Your task to perform on an android device: Open Google Chrome and open the bookmarks view Image 0: 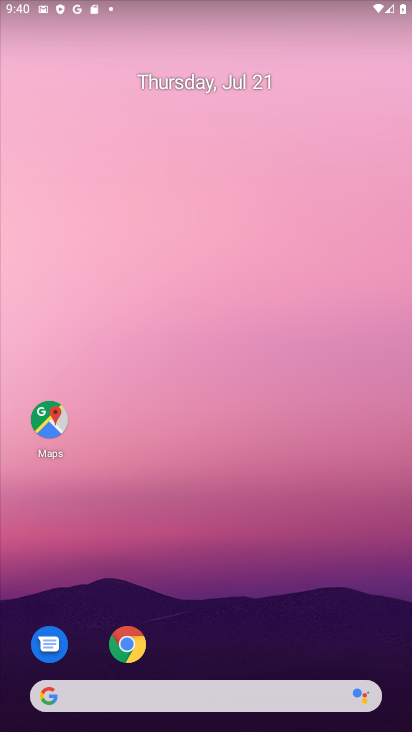
Step 0: press home button
Your task to perform on an android device: Open Google Chrome and open the bookmarks view Image 1: 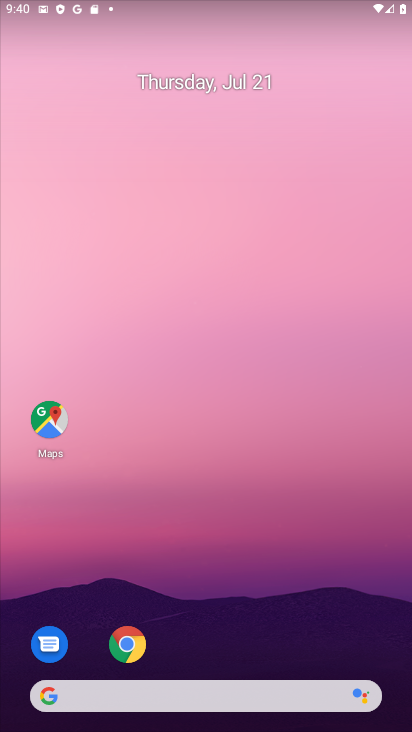
Step 1: click (121, 648)
Your task to perform on an android device: Open Google Chrome and open the bookmarks view Image 2: 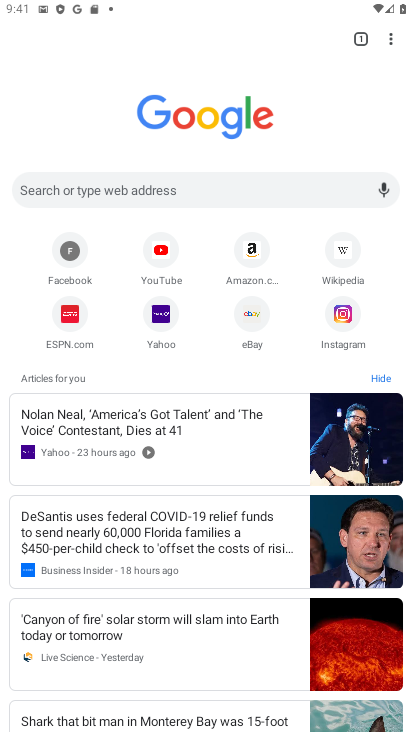
Step 2: click (390, 32)
Your task to perform on an android device: Open Google Chrome and open the bookmarks view Image 3: 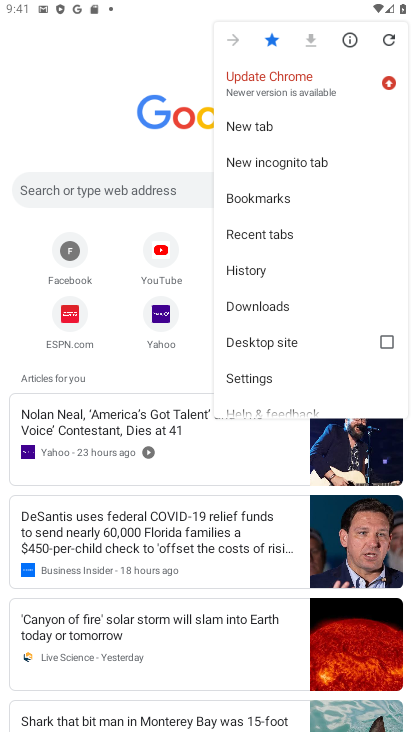
Step 3: click (269, 196)
Your task to perform on an android device: Open Google Chrome and open the bookmarks view Image 4: 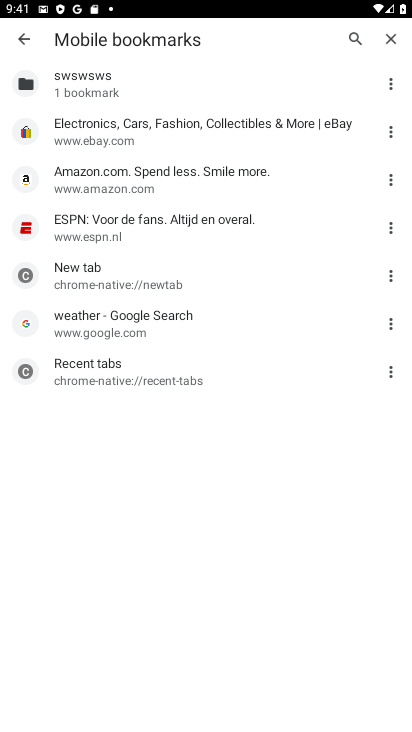
Step 4: task complete